Your task to perform on an android device: turn off smart reply in the gmail app Image 0: 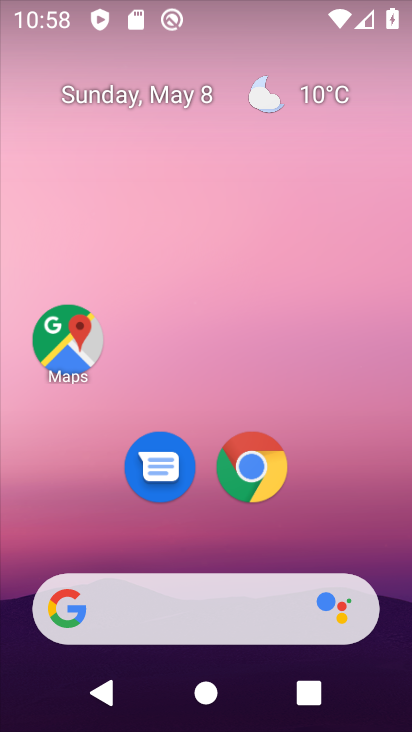
Step 0: drag from (375, 558) to (340, 148)
Your task to perform on an android device: turn off smart reply in the gmail app Image 1: 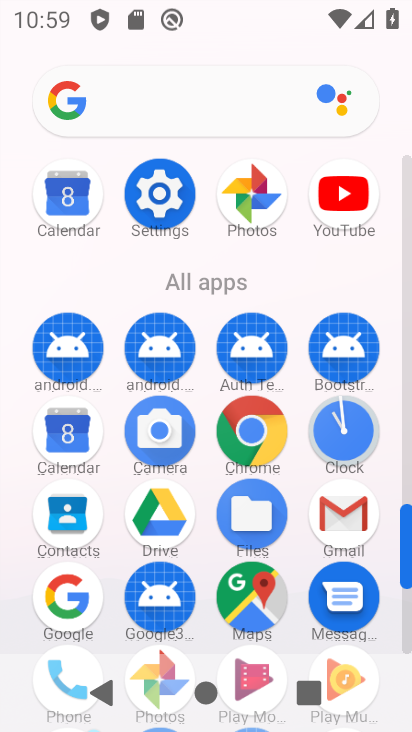
Step 1: click (345, 512)
Your task to perform on an android device: turn off smart reply in the gmail app Image 2: 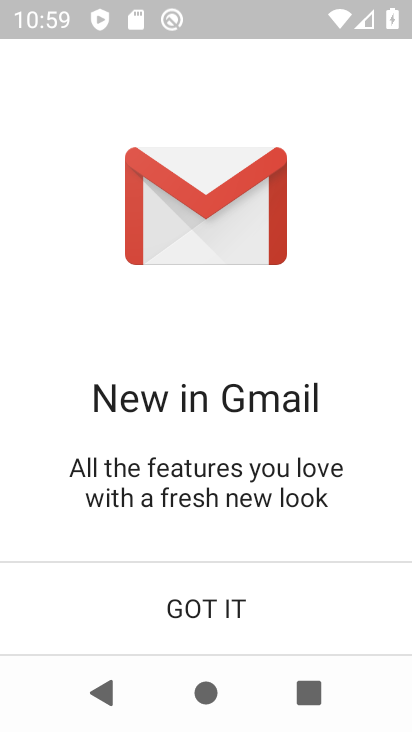
Step 2: click (229, 610)
Your task to perform on an android device: turn off smart reply in the gmail app Image 3: 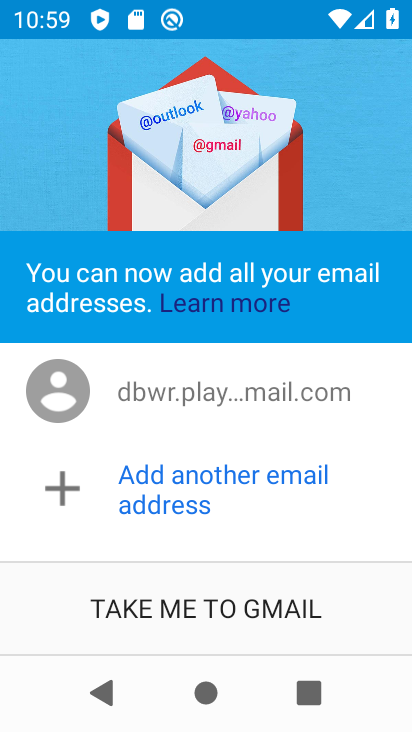
Step 3: click (229, 610)
Your task to perform on an android device: turn off smart reply in the gmail app Image 4: 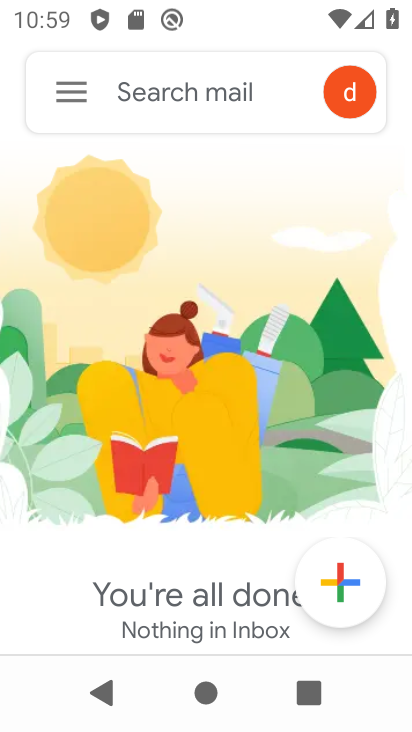
Step 4: click (90, 87)
Your task to perform on an android device: turn off smart reply in the gmail app Image 5: 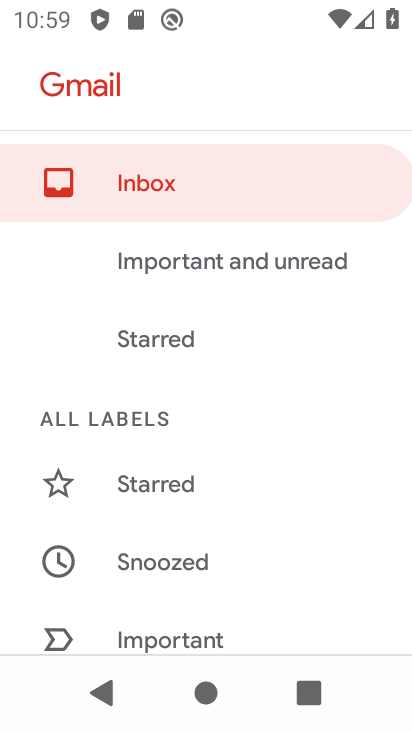
Step 5: drag from (135, 606) to (114, 48)
Your task to perform on an android device: turn off smart reply in the gmail app Image 6: 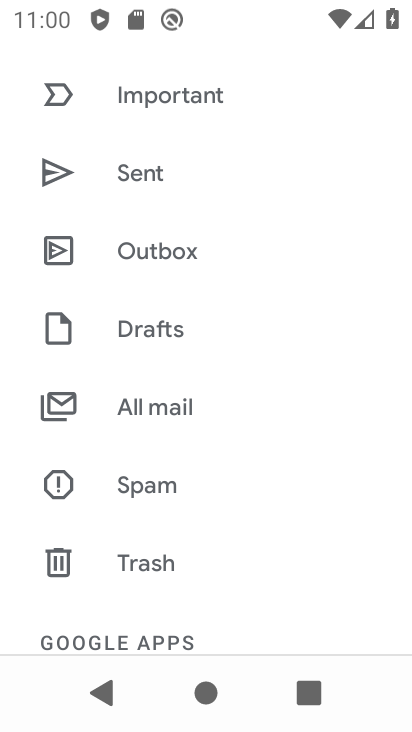
Step 6: drag from (217, 583) to (198, 165)
Your task to perform on an android device: turn off smart reply in the gmail app Image 7: 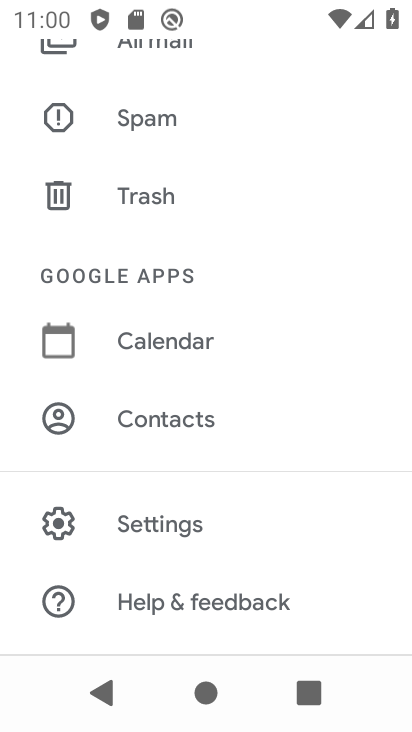
Step 7: click (227, 520)
Your task to perform on an android device: turn off smart reply in the gmail app Image 8: 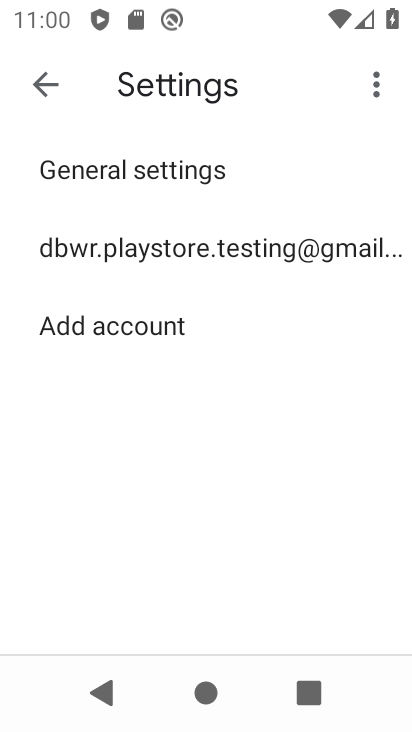
Step 8: click (314, 266)
Your task to perform on an android device: turn off smart reply in the gmail app Image 9: 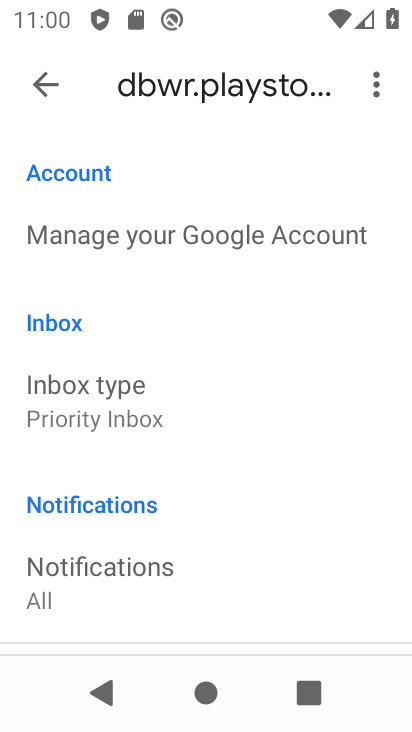
Step 9: drag from (294, 638) to (311, 191)
Your task to perform on an android device: turn off smart reply in the gmail app Image 10: 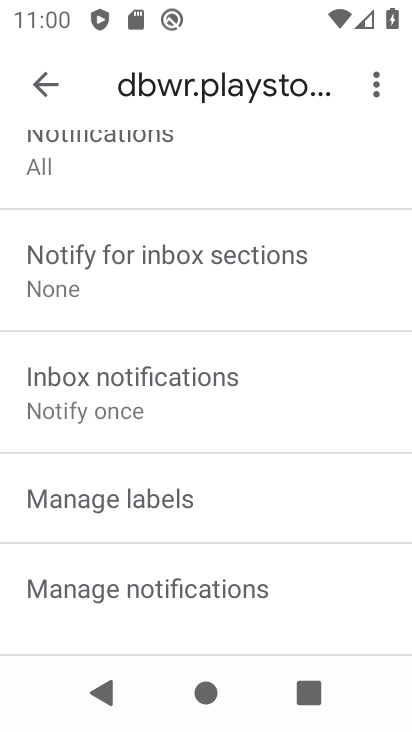
Step 10: drag from (273, 494) to (317, 1)
Your task to perform on an android device: turn off smart reply in the gmail app Image 11: 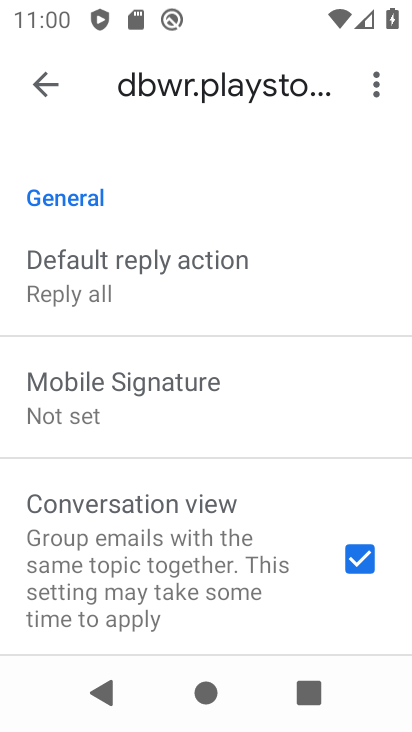
Step 11: drag from (205, 588) to (184, 109)
Your task to perform on an android device: turn off smart reply in the gmail app Image 12: 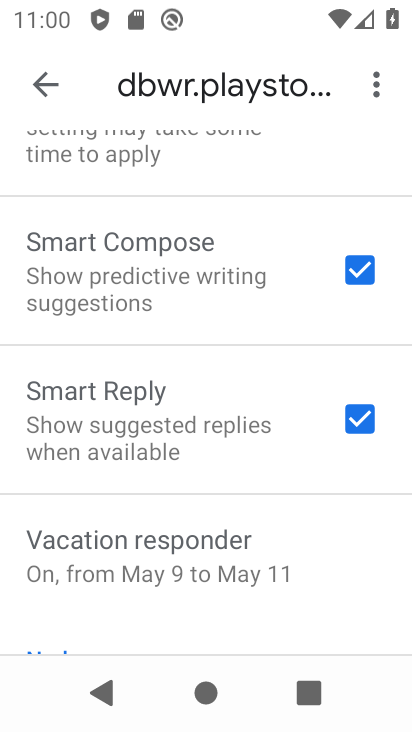
Step 12: click (349, 417)
Your task to perform on an android device: turn off smart reply in the gmail app Image 13: 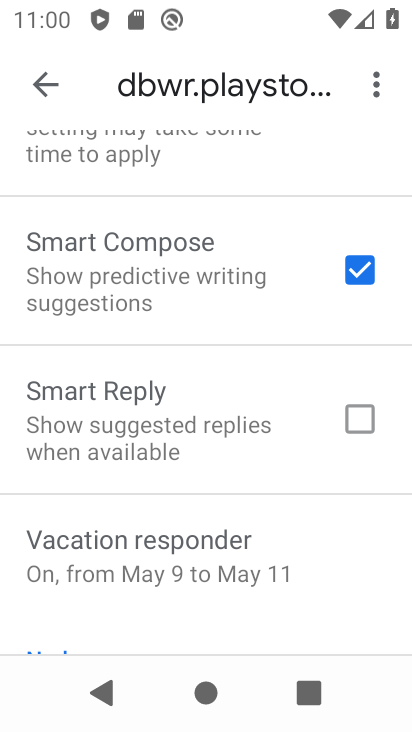
Step 13: task complete